Your task to perform on an android device: turn on bluetooth scan Image 0: 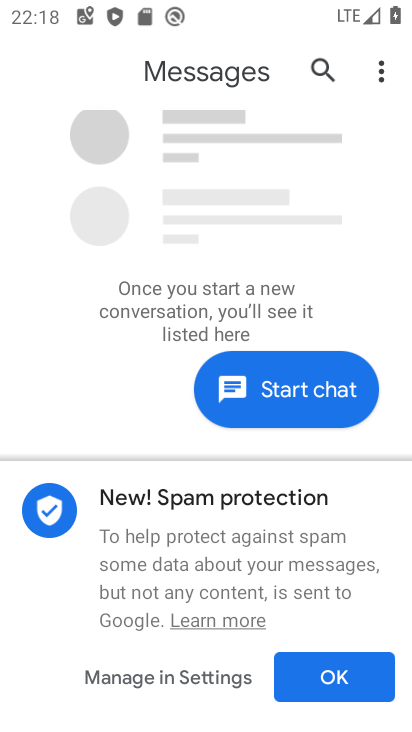
Step 0: press home button
Your task to perform on an android device: turn on bluetooth scan Image 1: 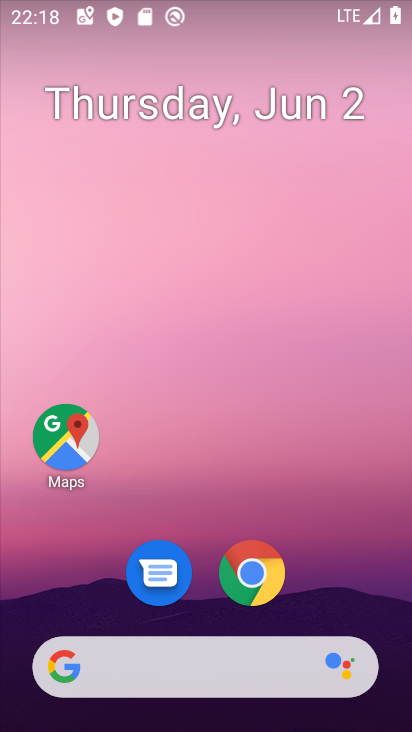
Step 1: drag from (335, 567) to (288, 48)
Your task to perform on an android device: turn on bluetooth scan Image 2: 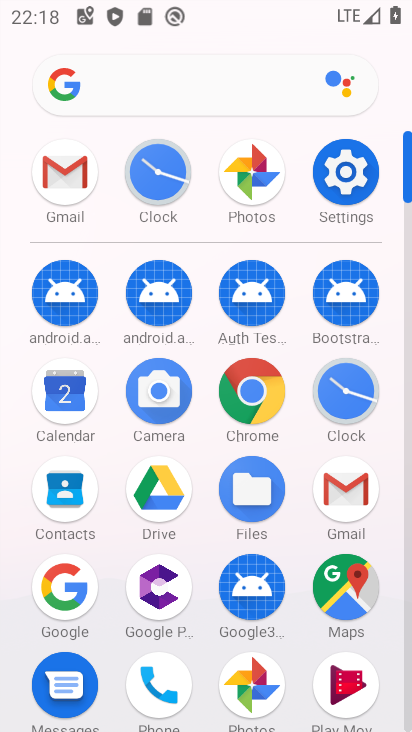
Step 2: click (358, 166)
Your task to perform on an android device: turn on bluetooth scan Image 3: 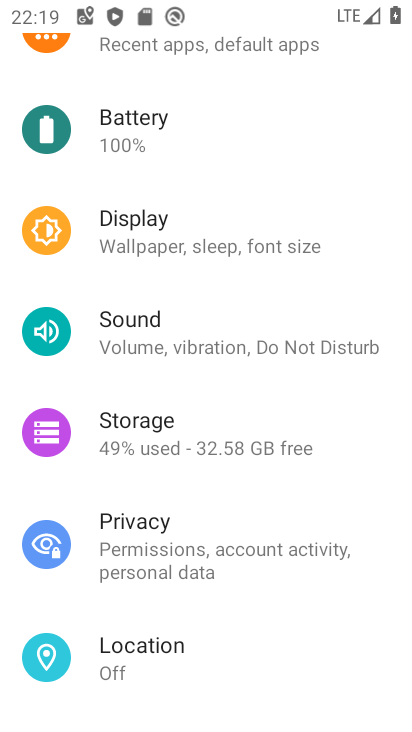
Step 3: drag from (239, 195) to (251, 603)
Your task to perform on an android device: turn on bluetooth scan Image 4: 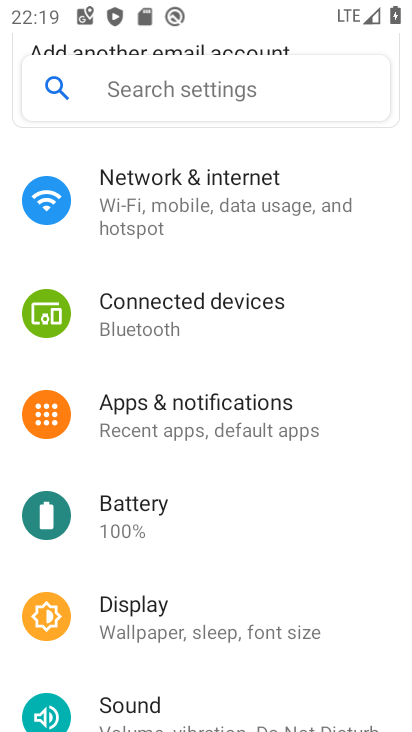
Step 4: drag from (279, 598) to (292, 209)
Your task to perform on an android device: turn on bluetooth scan Image 5: 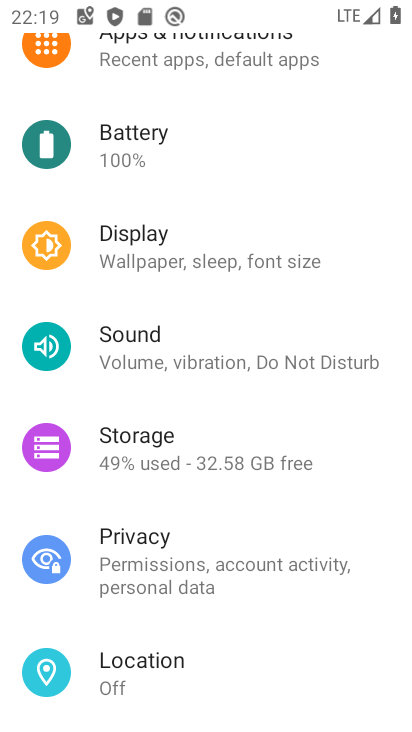
Step 5: click (130, 681)
Your task to perform on an android device: turn on bluetooth scan Image 6: 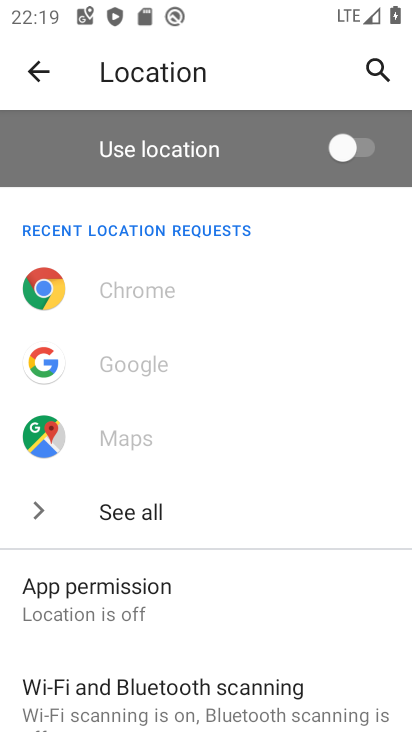
Step 6: drag from (285, 598) to (291, 190)
Your task to perform on an android device: turn on bluetooth scan Image 7: 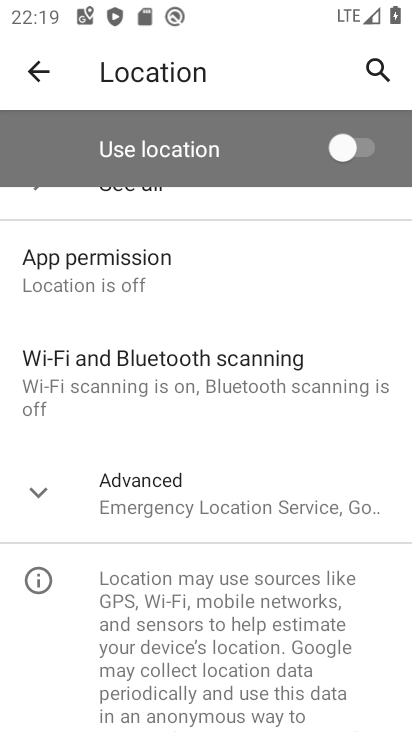
Step 7: click (257, 519)
Your task to perform on an android device: turn on bluetooth scan Image 8: 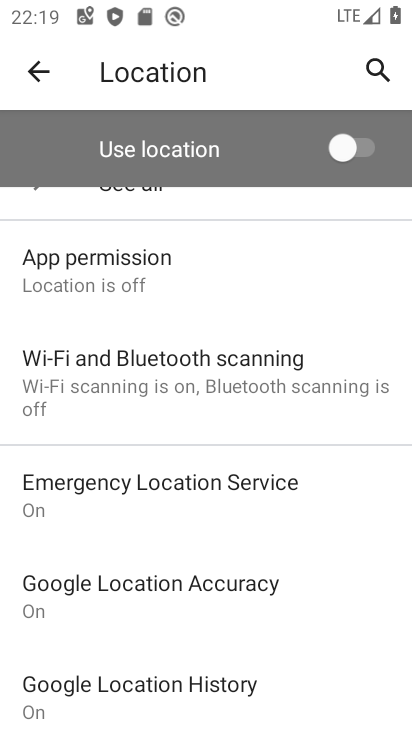
Step 8: click (243, 368)
Your task to perform on an android device: turn on bluetooth scan Image 9: 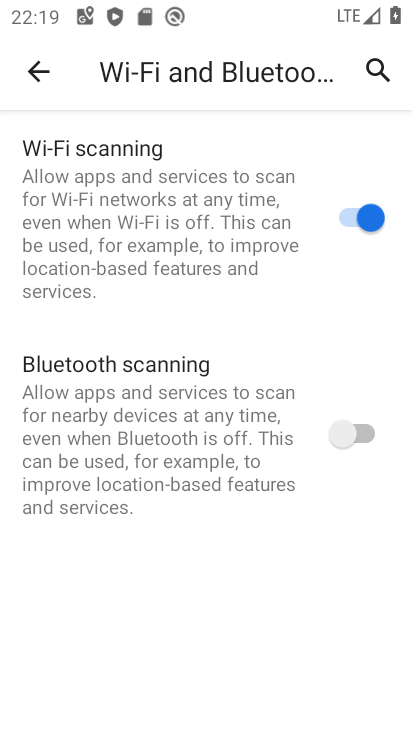
Step 9: click (362, 427)
Your task to perform on an android device: turn on bluetooth scan Image 10: 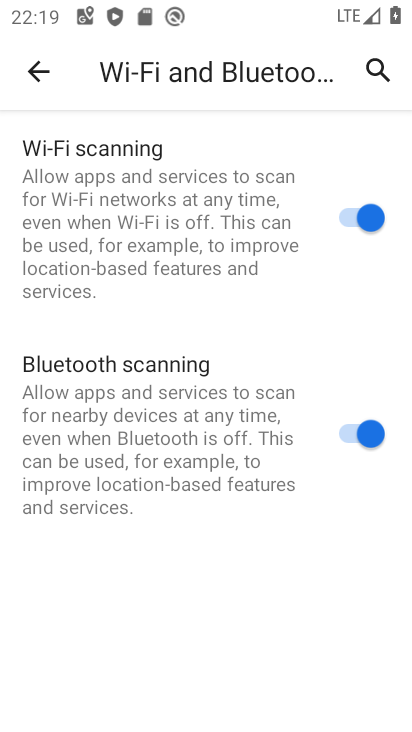
Step 10: task complete